Your task to perform on an android device: delete browsing data in the chrome app Image 0: 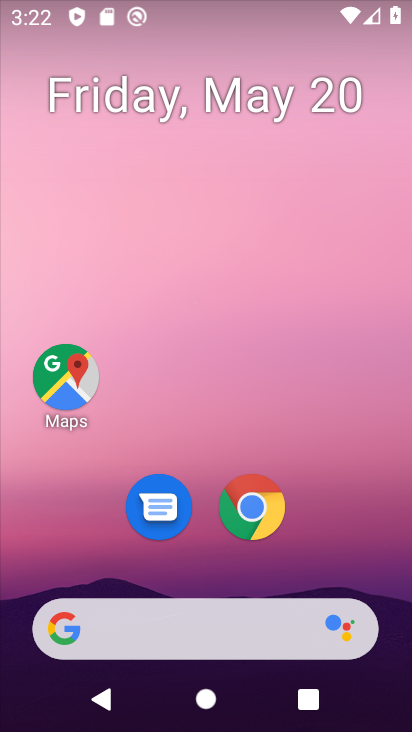
Step 0: click (250, 503)
Your task to perform on an android device: delete browsing data in the chrome app Image 1: 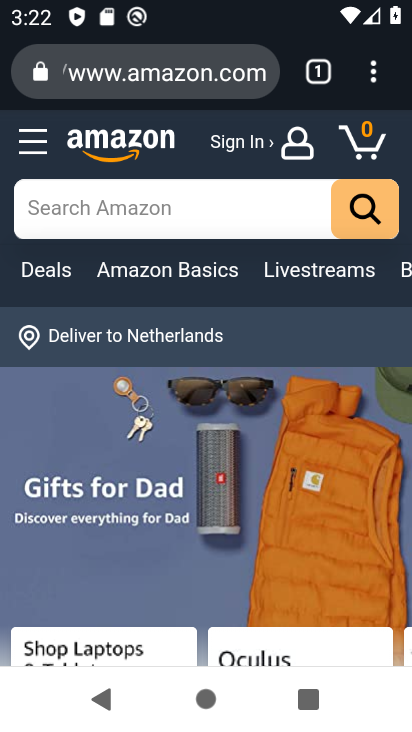
Step 1: click (374, 73)
Your task to perform on an android device: delete browsing data in the chrome app Image 2: 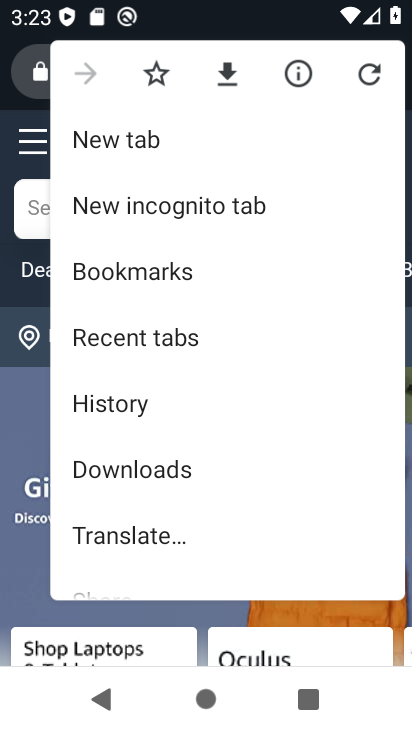
Step 2: drag from (143, 492) to (215, 324)
Your task to perform on an android device: delete browsing data in the chrome app Image 3: 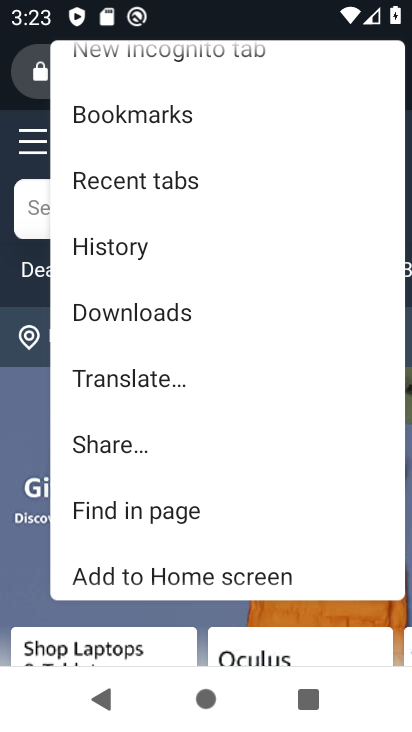
Step 3: drag from (144, 423) to (201, 319)
Your task to perform on an android device: delete browsing data in the chrome app Image 4: 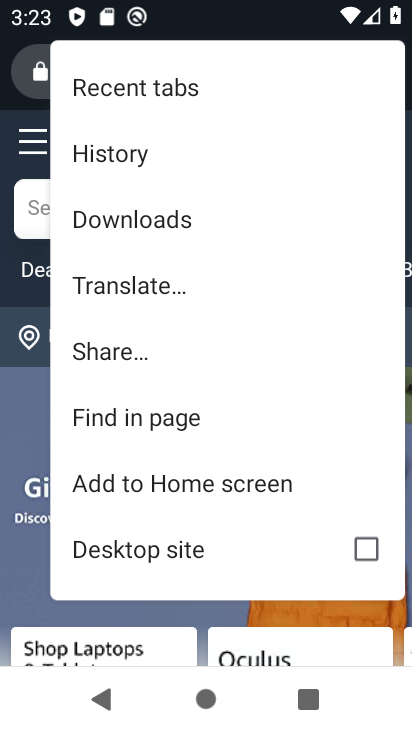
Step 4: drag from (121, 444) to (188, 290)
Your task to perform on an android device: delete browsing data in the chrome app Image 5: 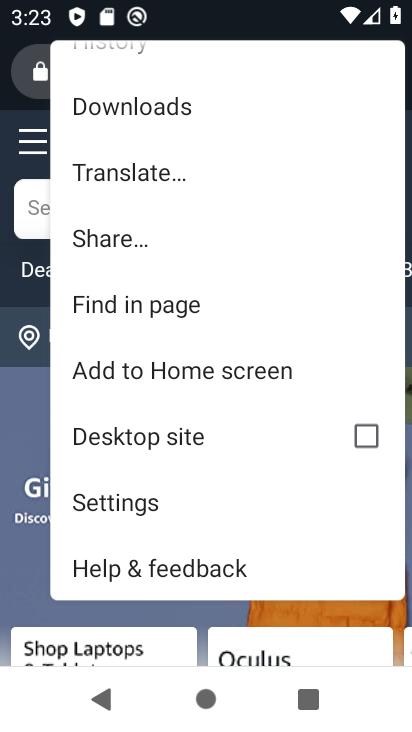
Step 5: click (139, 499)
Your task to perform on an android device: delete browsing data in the chrome app Image 6: 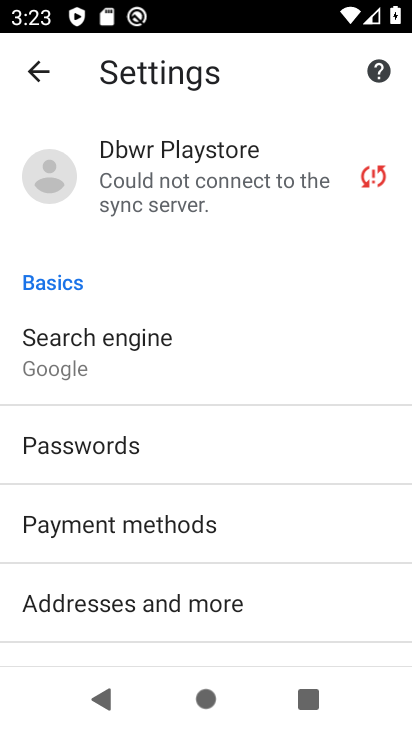
Step 6: drag from (140, 571) to (231, 424)
Your task to perform on an android device: delete browsing data in the chrome app Image 7: 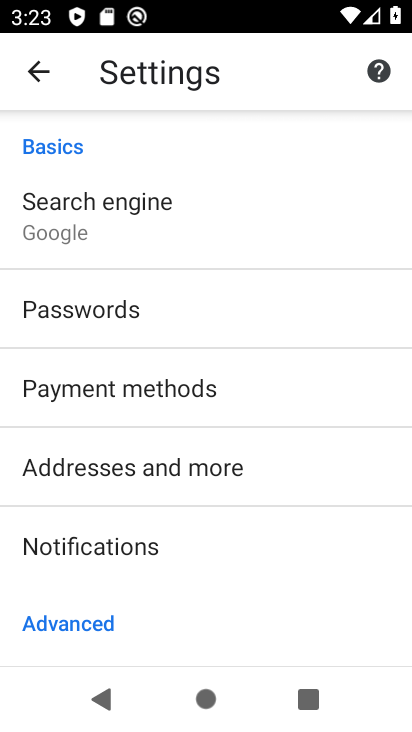
Step 7: drag from (178, 578) to (262, 434)
Your task to perform on an android device: delete browsing data in the chrome app Image 8: 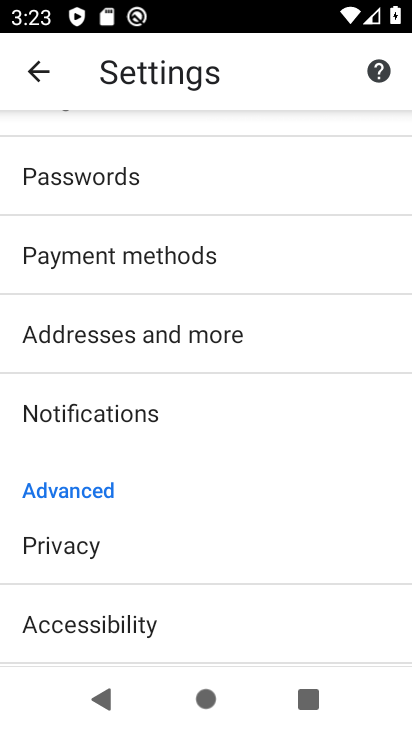
Step 8: drag from (144, 560) to (224, 455)
Your task to perform on an android device: delete browsing data in the chrome app Image 9: 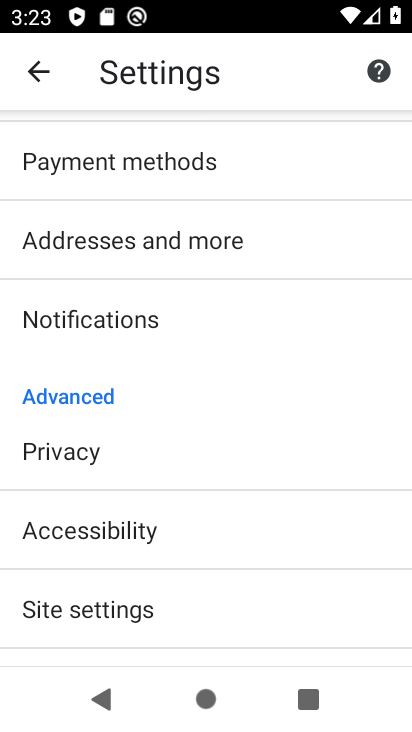
Step 9: click (81, 450)
Your task to perform on an android device: delete browsing data in the chrome app Image 10: 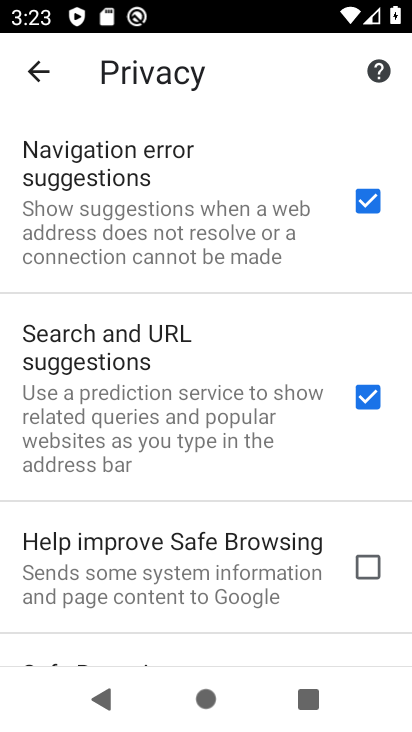
Step 10: drag from (144, 631) to (202, 520)
Your task to perform on an android device: delete browsing data in the chrome app Image 11: 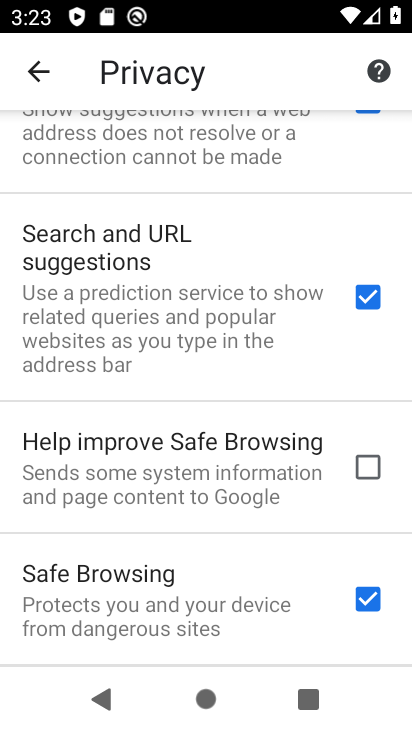
Step 11: drag from (146, 599) to (203, 506)
Your task to perform on an android device: delete browsing data in the chrome app Image 12: 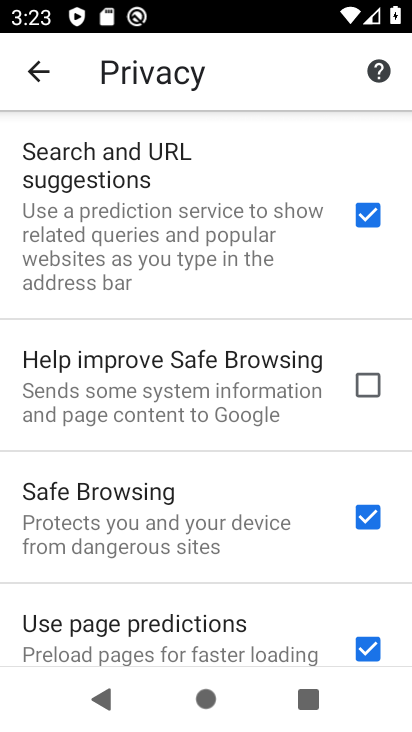
Step 12: drag from (139, 612) to (190, 491)
Your task to perform on an android device: delete browsing data in the chrome app Image 13: 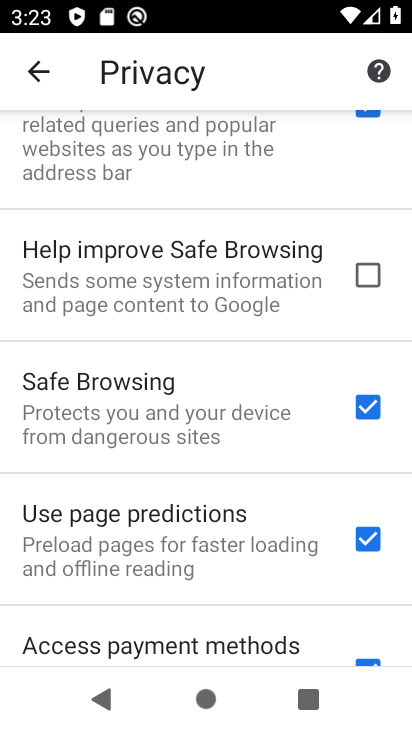
Step 13: drag from (156, 620) to (156, 503)
Your task to perform on an android device: delete browsing data in the chrome app Image 14: 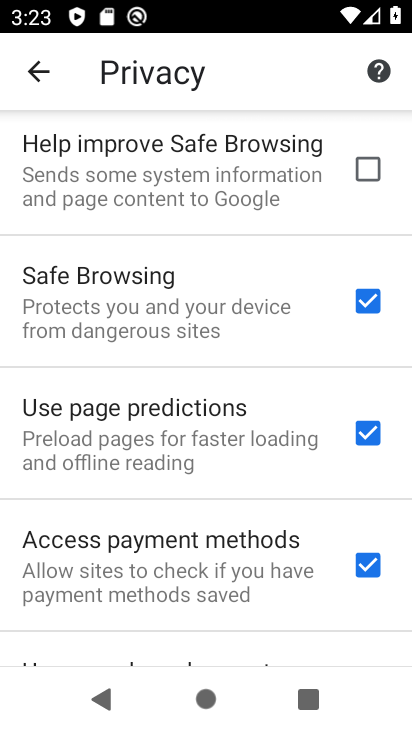
Step 14: drag from (166, 635) to (225, 467)
Your task to perform on an android device: delete browsing data in the chrome app Image 15: 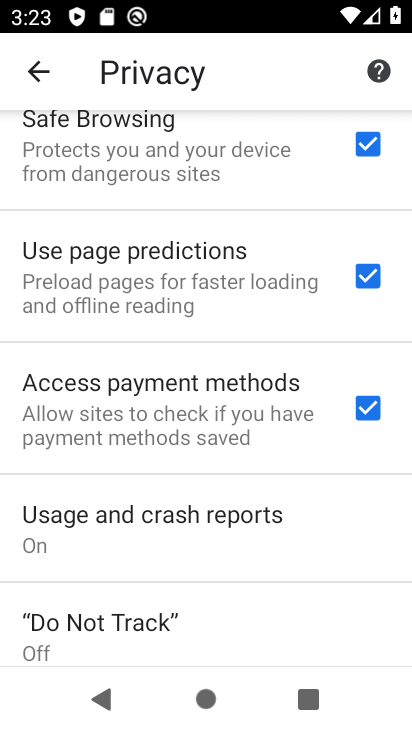
Step 15: drag from (170, 555) to (206, 380)
Your task to perform on an android device: delete browsing data in the chrome app Image 16: 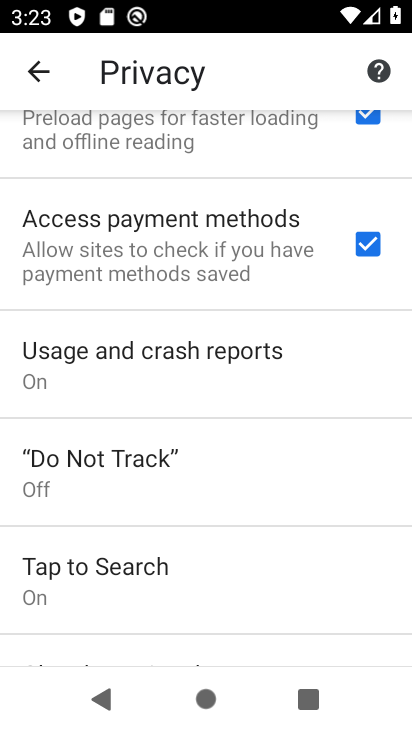
Step 16: drag from (187, 584) to (262, 455)
Your task to perform on an android device: delete browsing data in the chrome app Image 17: 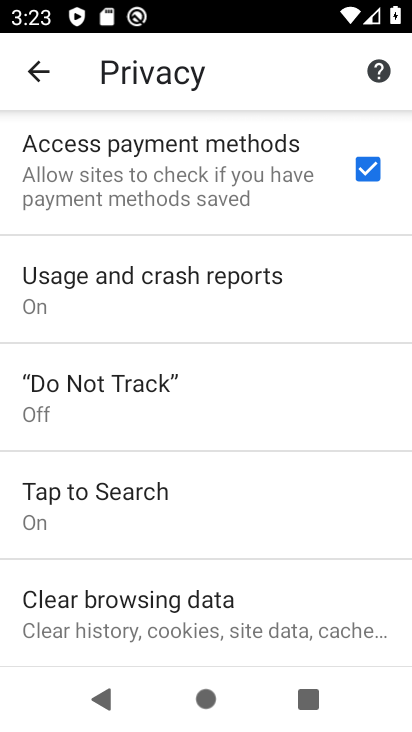
Step 17: click (184, 600)
Your task to perform on an android device: delete browsing data in the chrome app Image 18: 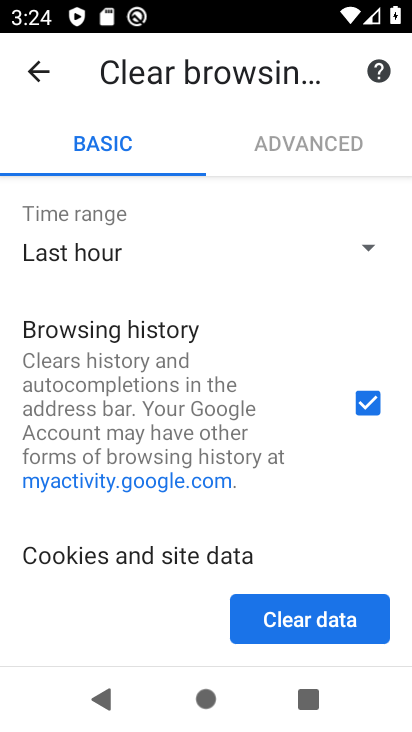
Step 18: click (301, 629)
Your task to perform on an android device: delete browsing data in the chrome app Image 19: 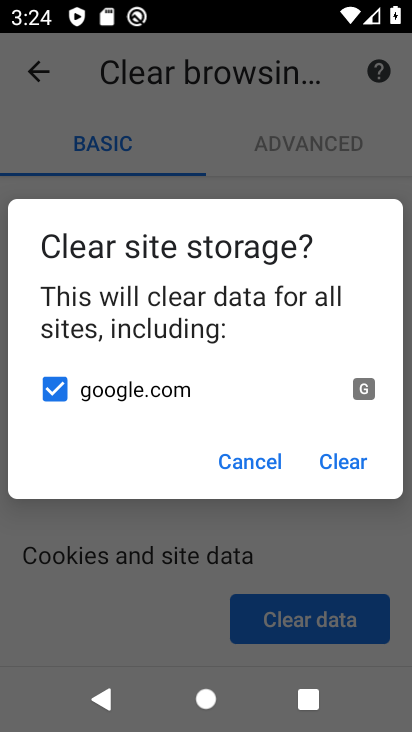
Step 19: click (350, 466)
Your task to perform on an android device: delete browsing data in the chrome app Image 20: 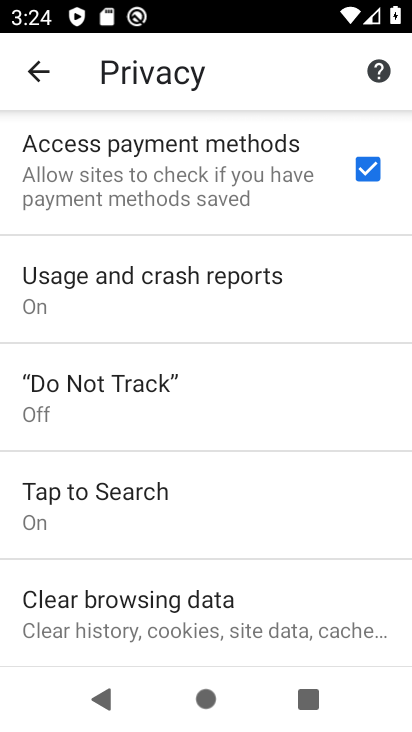
Step 20: task complete